Your task to perform on an android device: Search for seafood restaurants on Google Maps Image 0: 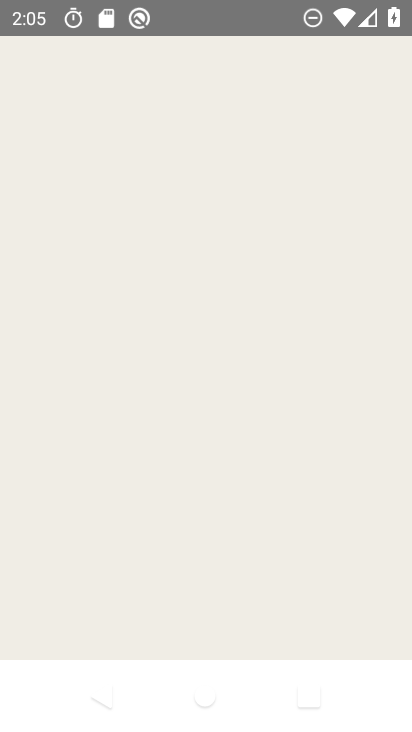
Step 0: drag from (293, 395) to (307, 90)
Your task to perform on an android device: Search for seafood restaurants on Google Maps Image 1: 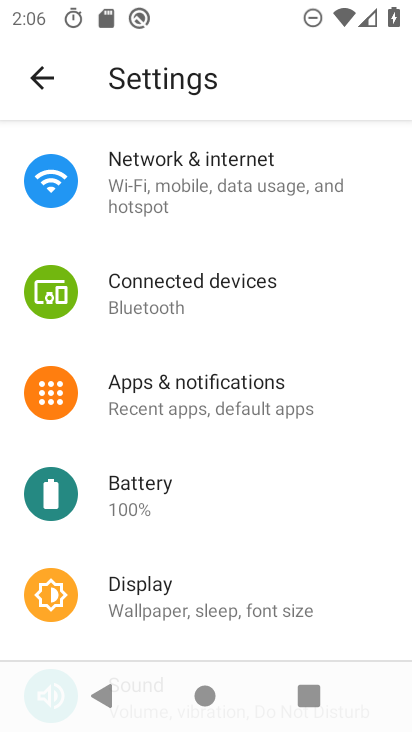
Step 1: press home button
Your task to perform on an android device: Search for seafood restaurants on Google Maps Image 2: 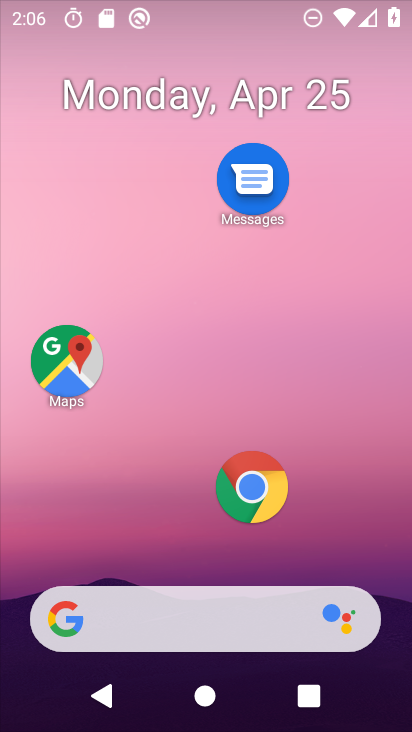
Step 2: drag from (238, 604) to (244, 125)
Your task to perform on an android device: Search for seafood restaurants on Google Maps Image 3: 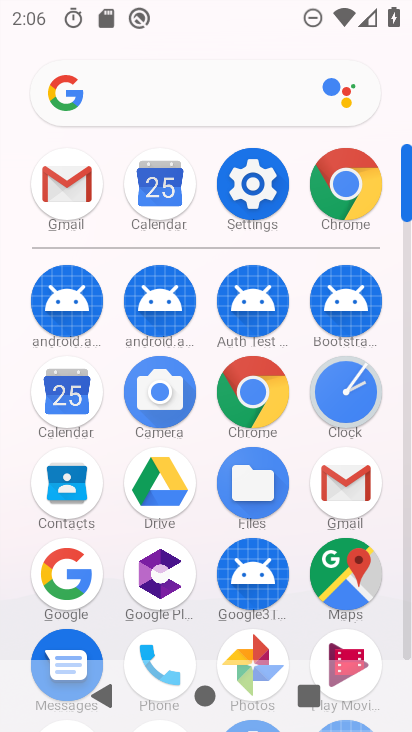
Step 3: click (338, 579)
Your task to perform on an android device: Search for seafood restaurants on Google Maps Image 4: 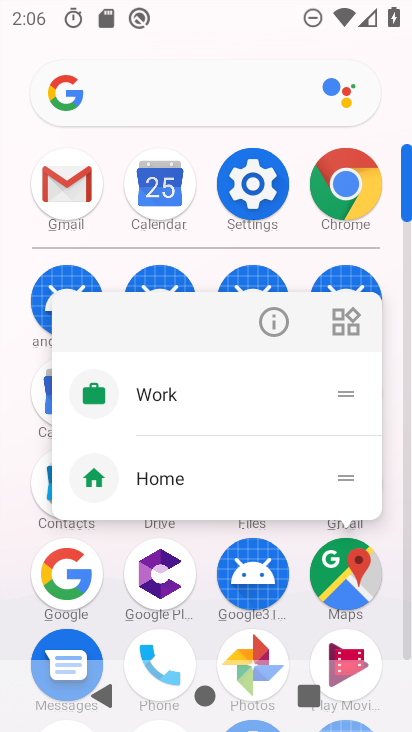
Step 4: click (338, 579)
Your task to perform on an android device: Search for seafood restaurants on Google Maps Image 5: 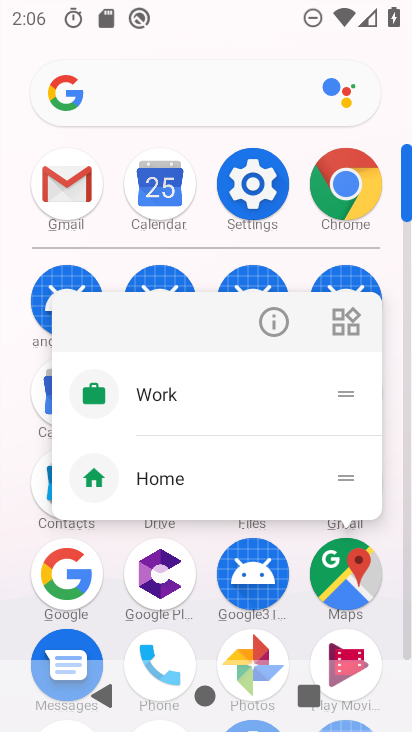
Step 5: click (338, 579)
Your task to perform on an android device: Search for seafood restaurants on Google Maps Image 6: 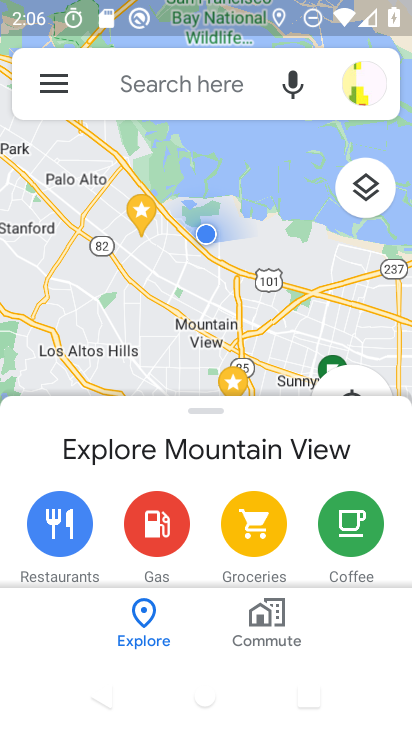
Step 6: click (250, 88)
Your task to perform on an android device: Search for seafood restaurants on Google Maps Image 7: 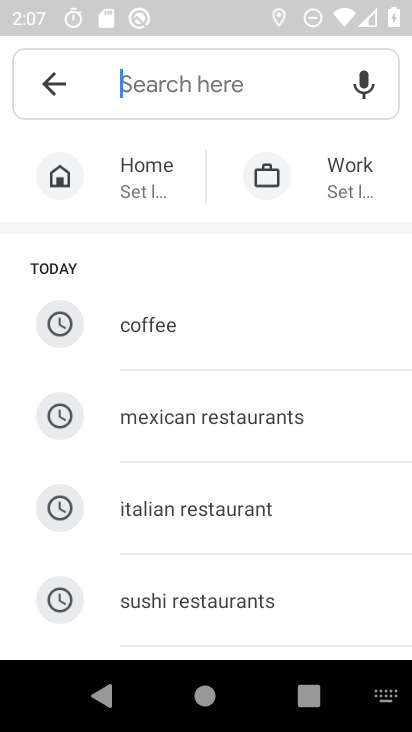
Step 7: type "seafood restaurant"
Your task to perform on an android device: Search for seafood restaurants on Google Maps Image 8: 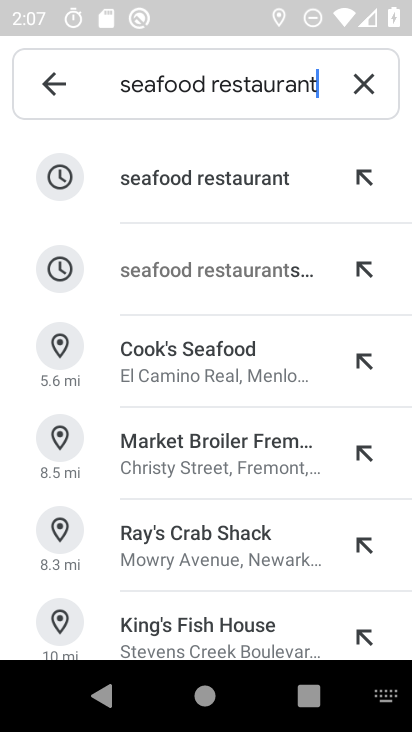
Step 8: click (220, 192)
Your task to perform on an android device: Search for seafood restaurants on Google Maps Image 9: 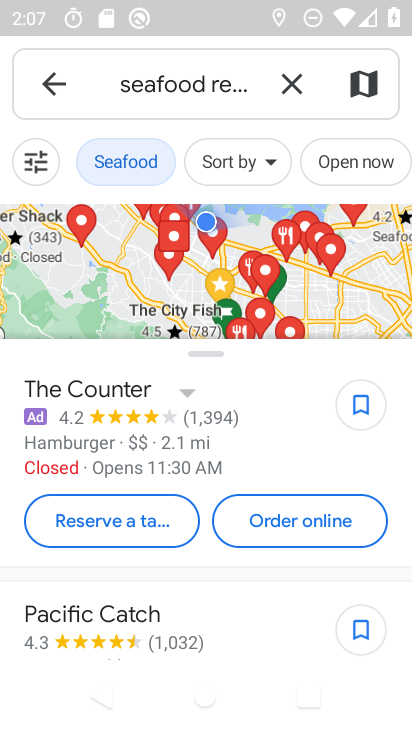
Step 9: task complete